Your task to perform on an android device: set an alarm Image 0: 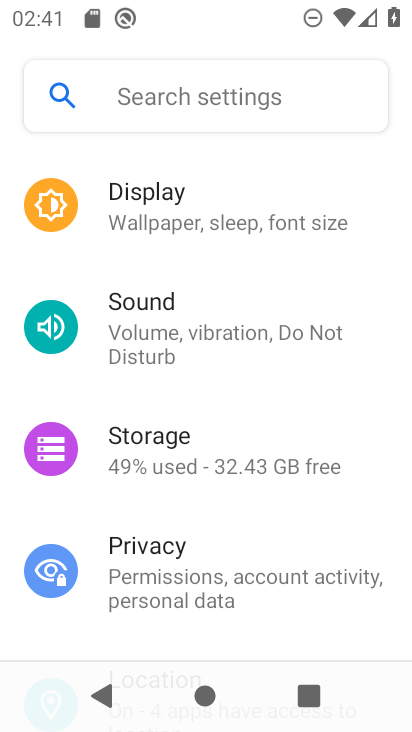
Step 0: press home button
Your task to perform on an android device: set an alarm Image 1: 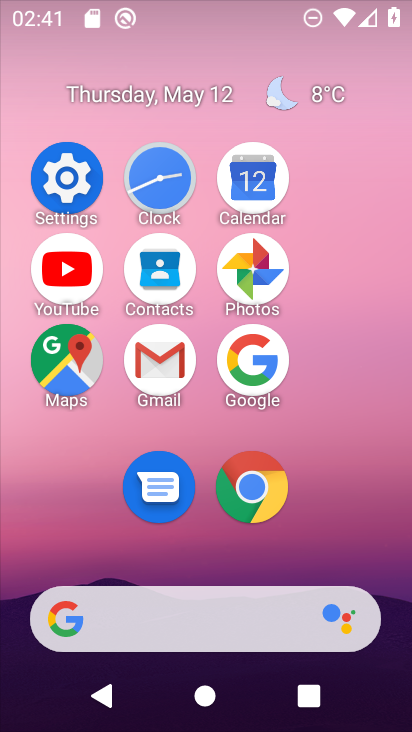
Step 1: click (171, 178)
Your task to perform on an android device: set an alarm Image 2: 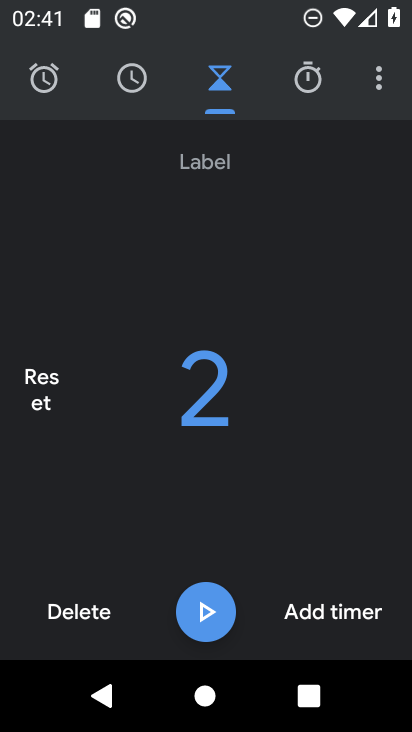
Step 2: click (44, 93)
Your task to perform on an android device: set an alarm Image 3: 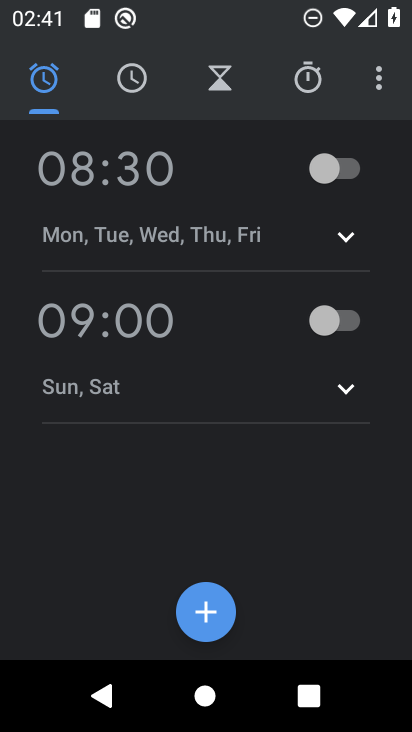
Step 3: click (320, 182)
Your task to perform on an android device: set an alarm Image 4: 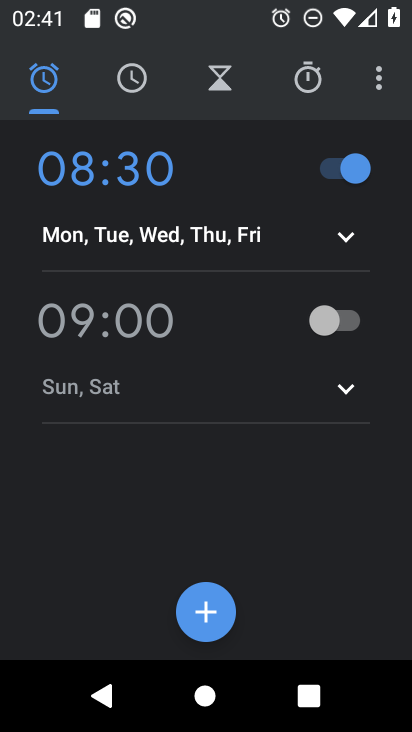
Step 4: task complete